Your task to perform on an android device: turn off smart reply in the gmail app Image 0: 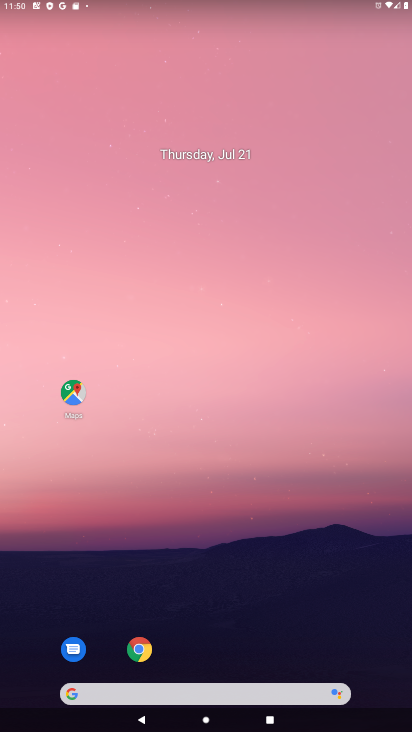
Step 0: drag from (304, 574) to (296, 99)
Your task to perform on an android device: turn off smart reply in the gmail app Image 1: 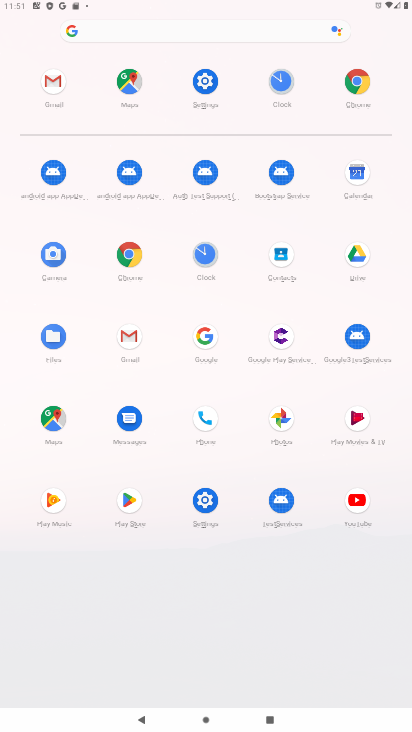
Step 1: click (126, 338)
Your task to perform on an android device: turn off smart reply in the gmail app Image 2: 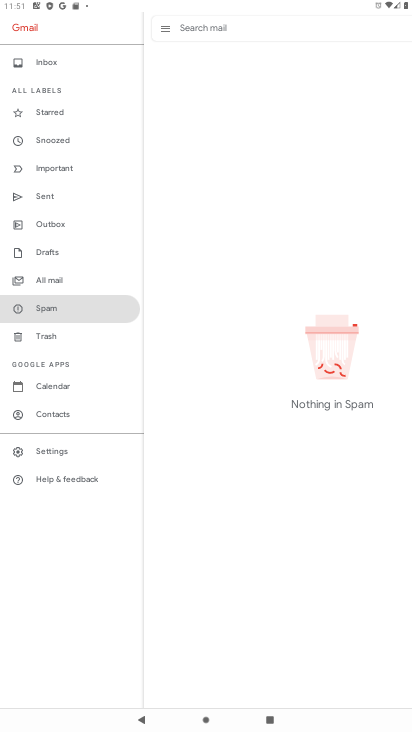
Step 2: click (61, 453)
Your task to perform on an android device: turn off smart reply in the gmail app Image 3: 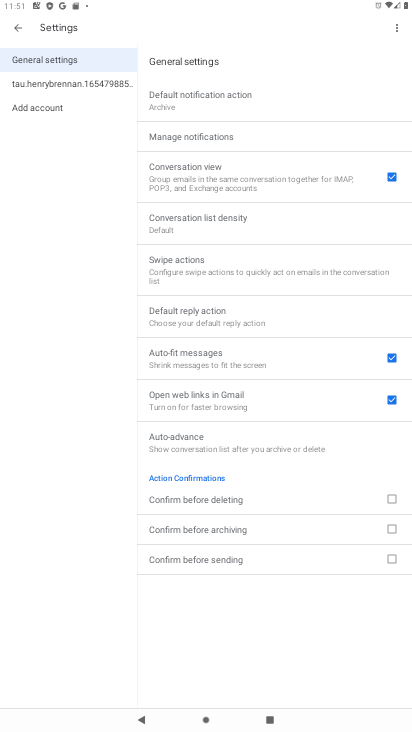
Step 3: click (78, 78)
Your task to perform on an android device: turn off smart reply in the gmail app Image 4: 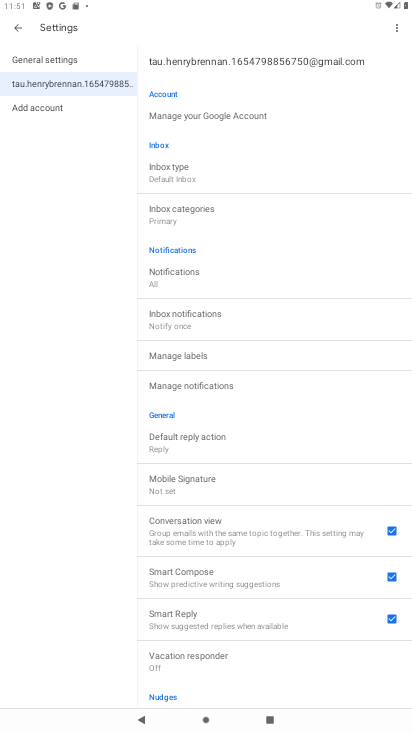
Step 4: click (396, 619)
Your task to perform on an android device: turn off smart reply in the gmail app Image 5: 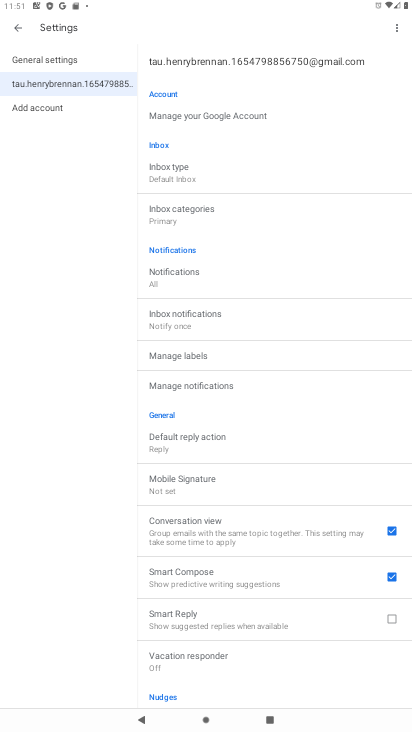
Step 5: task complete